Your task to perform on an android device: Go to internet settings Image 0: 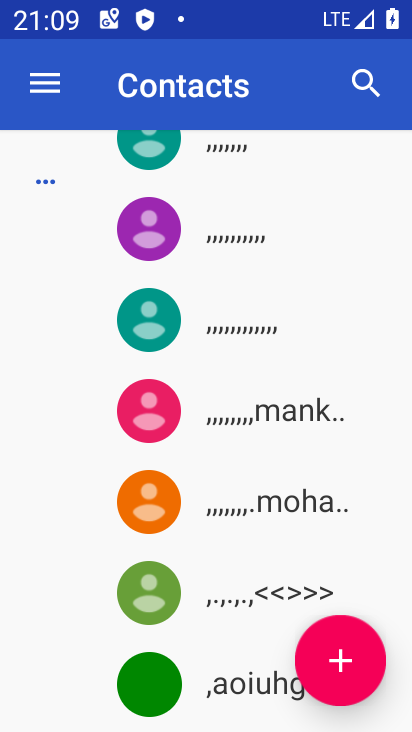
Step 0: press home button
Your task to perform on an android device: Go to internet settings Image 1: 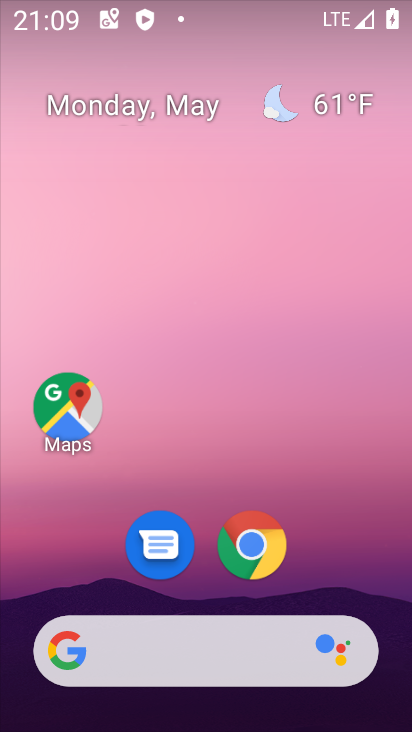
Step 1: drag from (203, 648) to (231, 186)
Your task to perform on an android device: Go to internet settings Image 2: 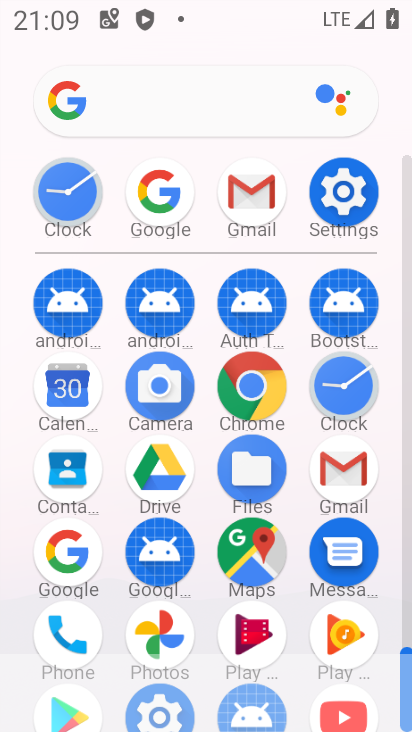
Step 2: click (346, 186)
Your task to perform on an android device: Go to internet settings Image 3: 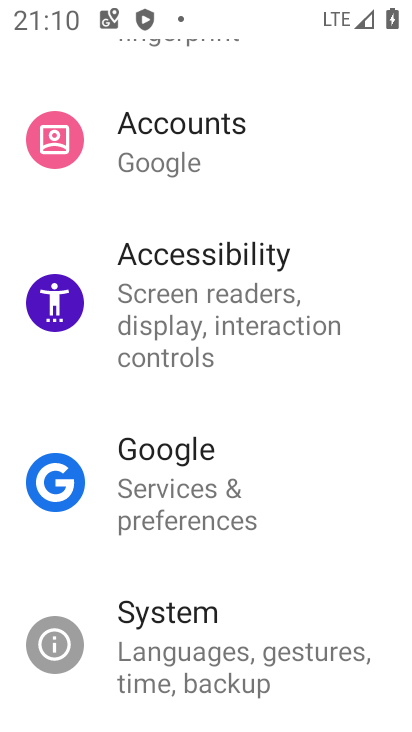
Step 3: drag from (217, 213) to (246, 553)
Your task to perform on an android device: Go to internet settings Image 4: 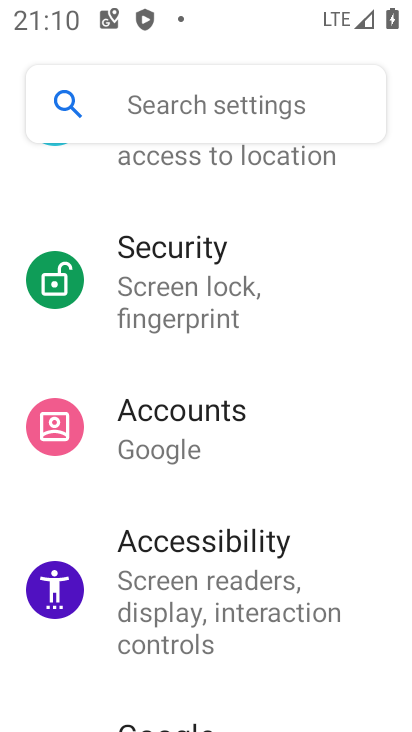
Step 4: drag from (160, 267) to (207, 586)
Your task to perform on an android device: Go to internet settings Image 5: 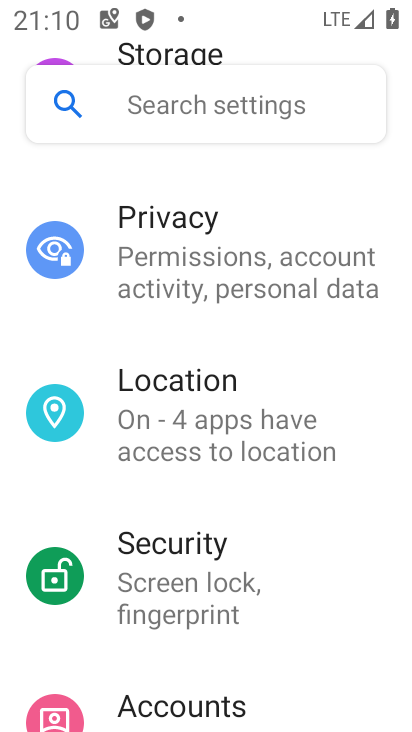
Step 5: drag from (183, 293) to (176, 722)
Your task to perform on an android device: Go to internet settings Image 6: 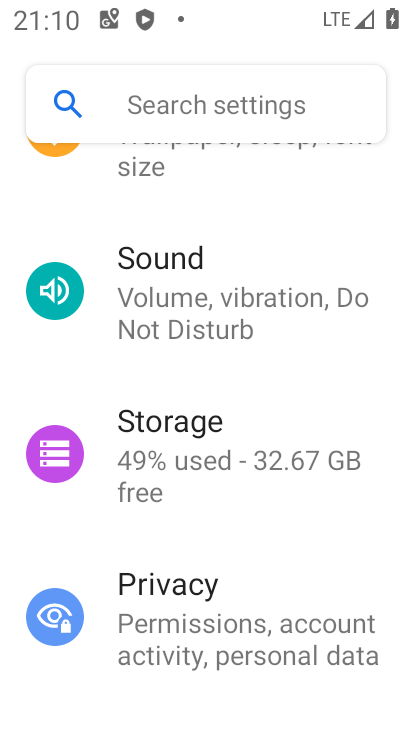
Step 6: drag from (228, 222) to (221, 608)
Your task to perform on an android device: Go to internet settings Image 7: 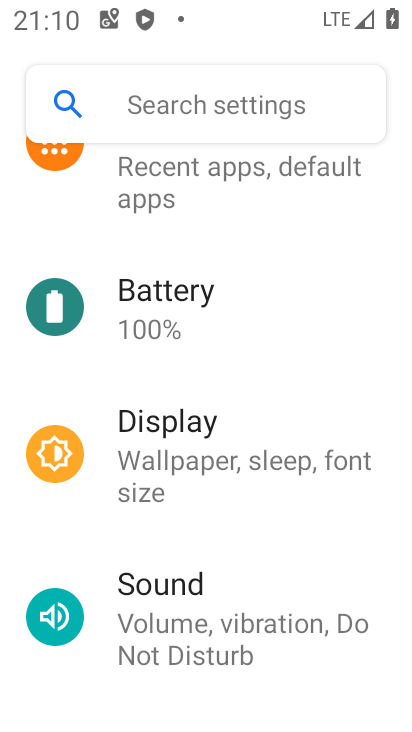
Step 7: drag from (231, 164) to (253, 692)
Your task to perform on an android device: Go to internet settings Image 8: 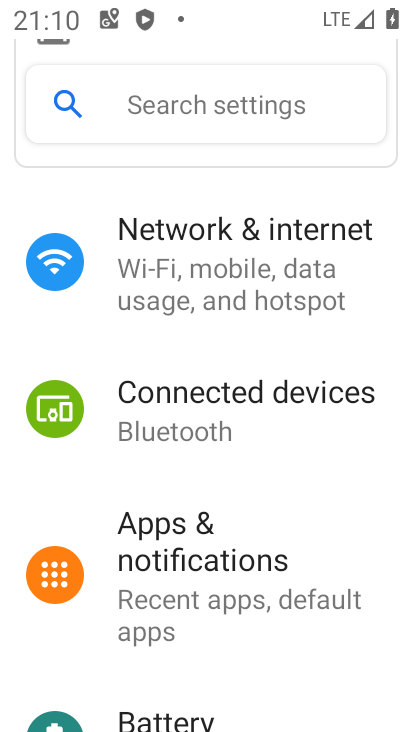
Step 8: click (227, 264)
Your task to perform on an android device: Go to internet settings Image 9: 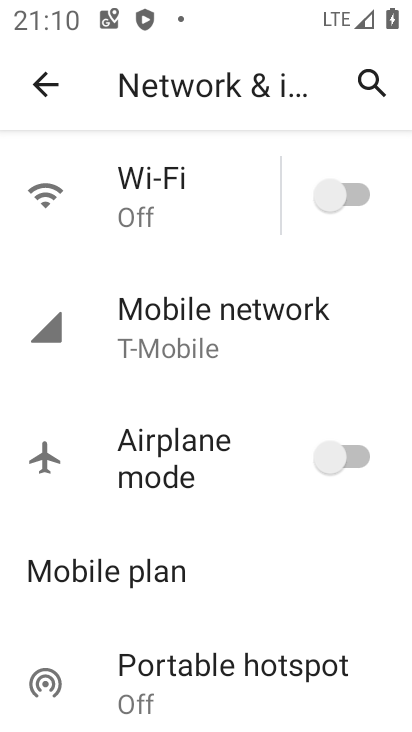
Step 9: task complete